Your task to perform on an android device: Open Amazon Image 0: 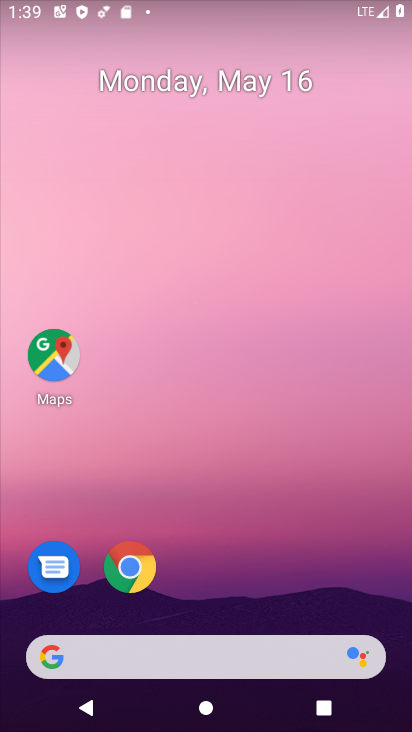
Step 0: click (141, 582)
Your task to perform on an android device: Open Amazon Image 1: 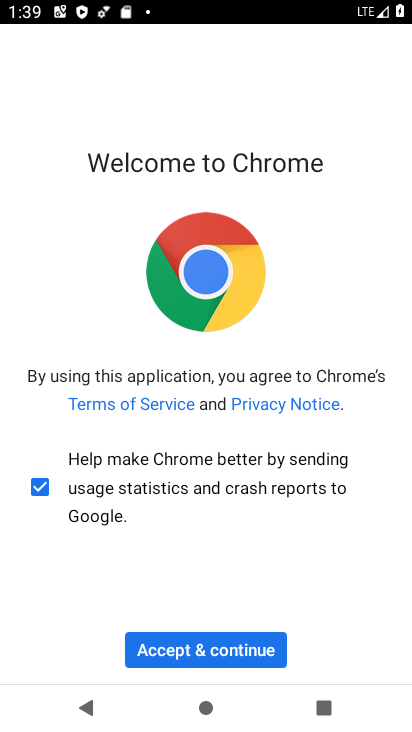
Step 1: click (195, 633)
Your task to perform on an android device: Open Amazon Image 2: 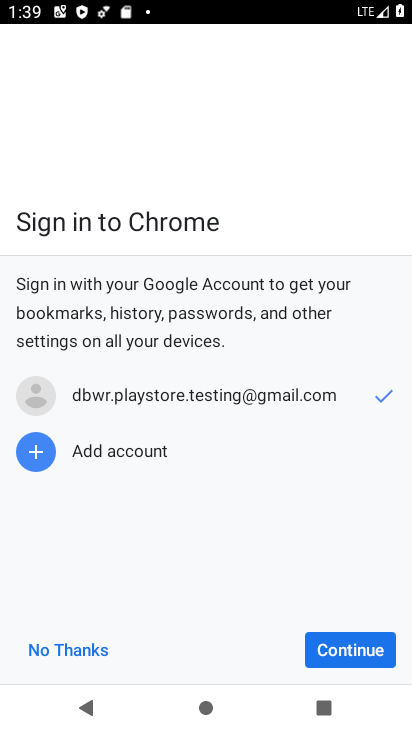
Step 2: click (342, 644)
Your task to perform on an android device: Open Amazon Image 3: 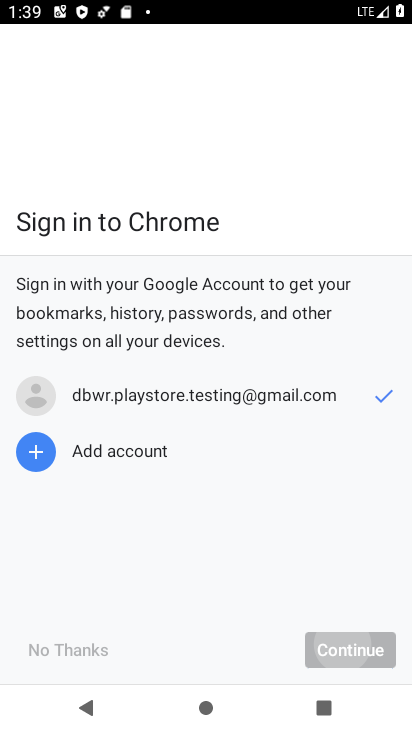
Step 3: click (342, 644)
Your task to perform on an android device: Open Amazon Image 4: 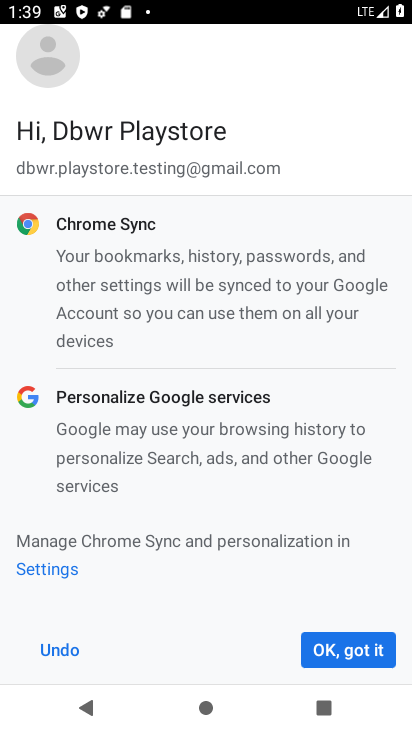
Step 4: click (342, 644)
Your task to perform on an android device: Open Amazon Image 5: 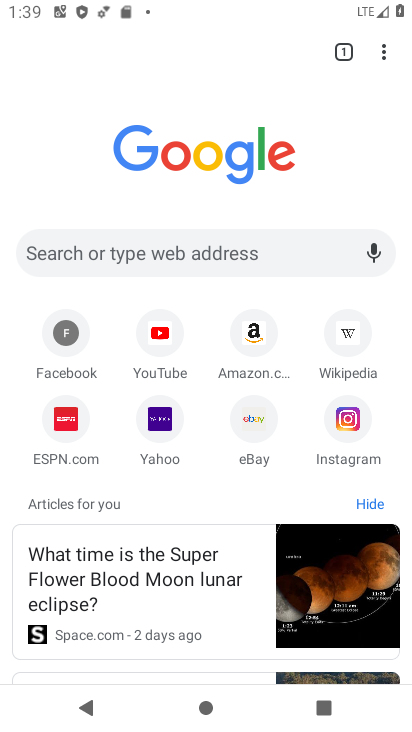
Step 5: click (261, 342)
Your task to perform on an android device: Open Amazon Image 6: 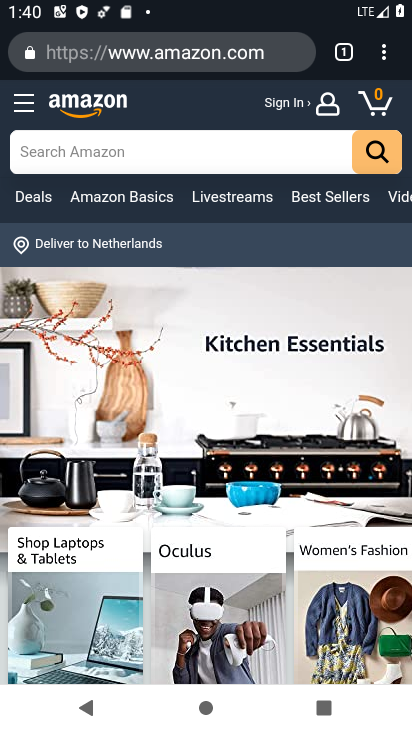
Step 6: task complete